Your task to perform on an android device: Turn off the flashlight Image 0: 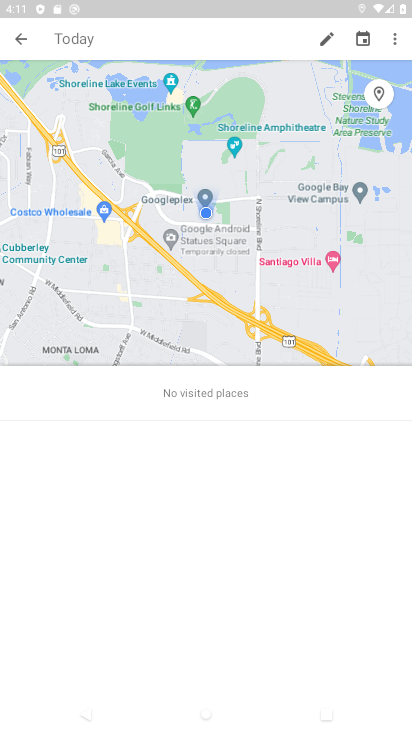
Step 0: press home button
Your task to perform on an android device: Turn off the flashlight Image 1: 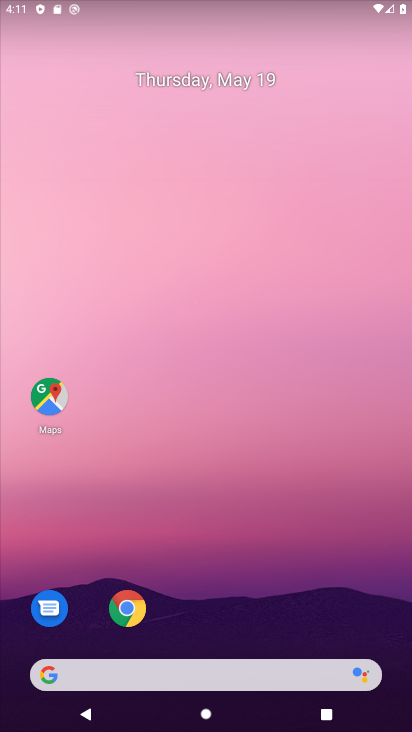
Step 1: drag from (261, 609) to (245, 132)
Your task to perform on an android device: Turn off the flashlight Image 2: 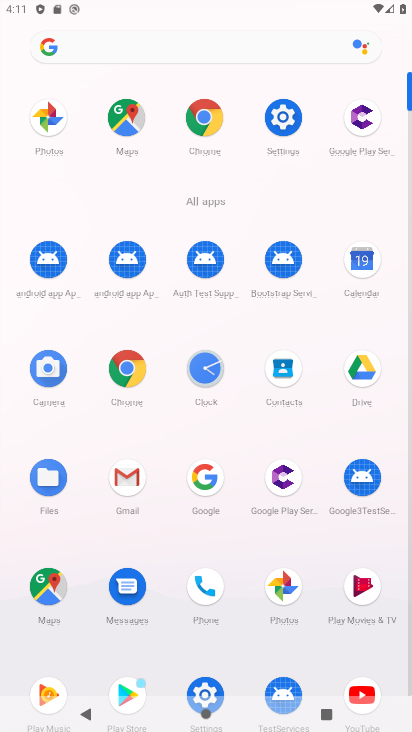
Step 2: click (279, 122)
Your task to perform on an android device: Turn off the flashlight Image 3: 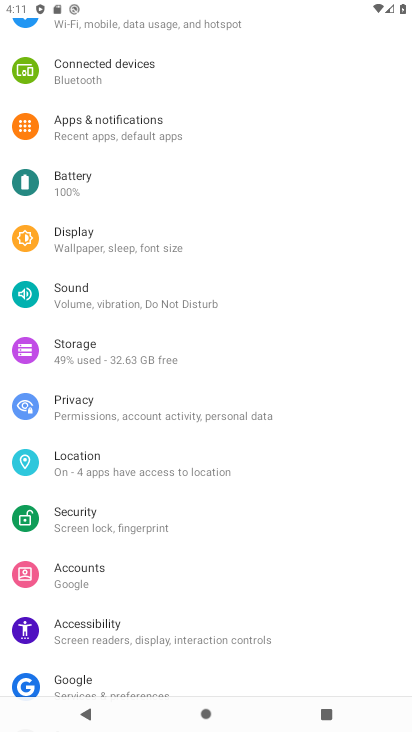
Step 3: drag from (161, 112) to (190, 536)
Your task to perform on an android device: Turn off the flashlight Image 4: 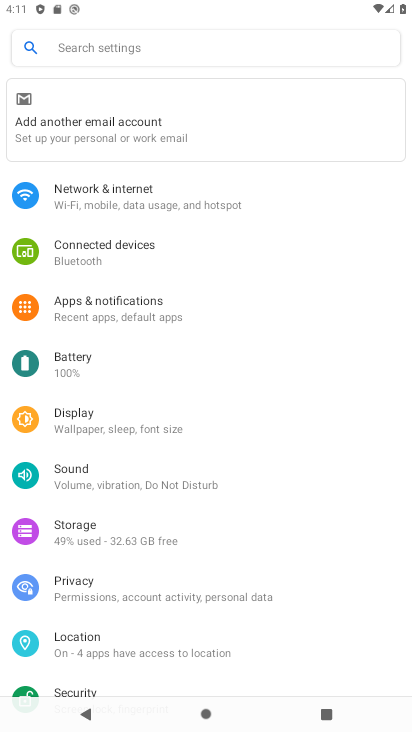
Step 4: click (88, 430)
Your task to perform on an android device: Turn off the flashlight Image 5: 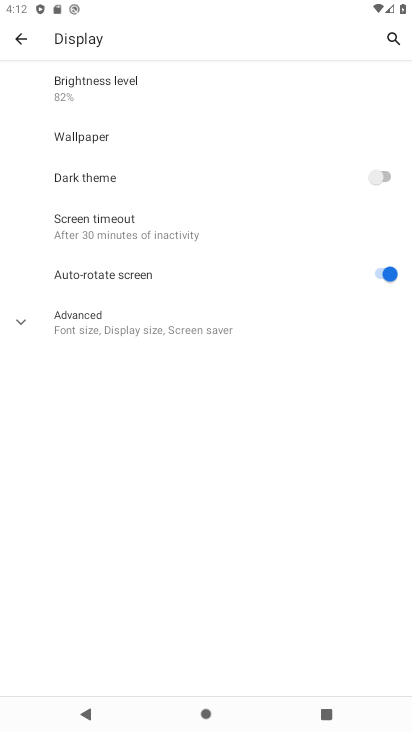
Step 5: task complete